Your task to perform on an android device: Open Amazon Image 0: 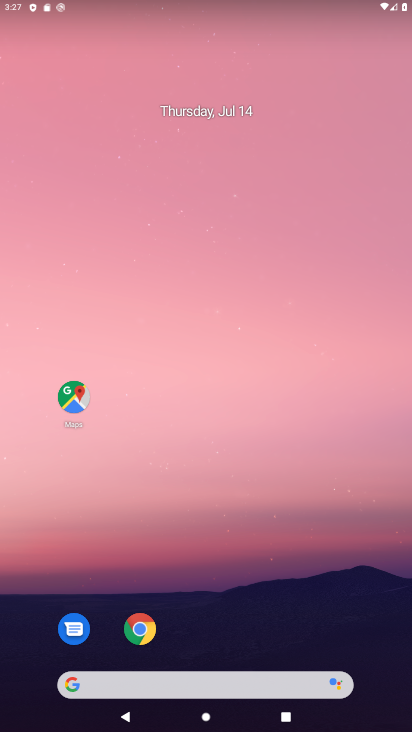
Step 0: drag from (259, 643) to (310, 65)
Your task to perform on an android device: Open Amazon Image 1: 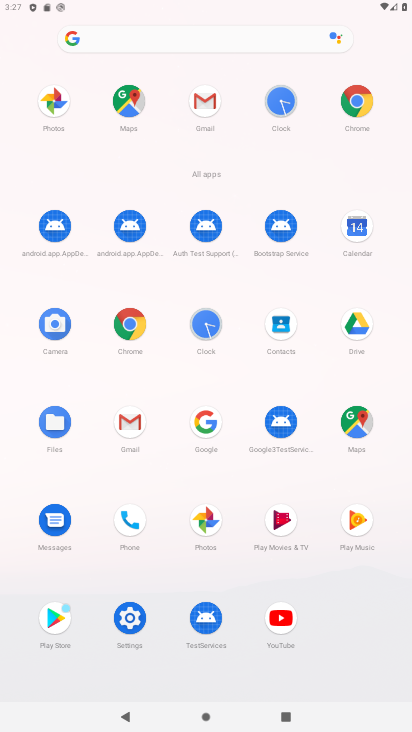
Step 1: click (357, 115)
Your task to perform on an android device: Open Amazon Image 2: 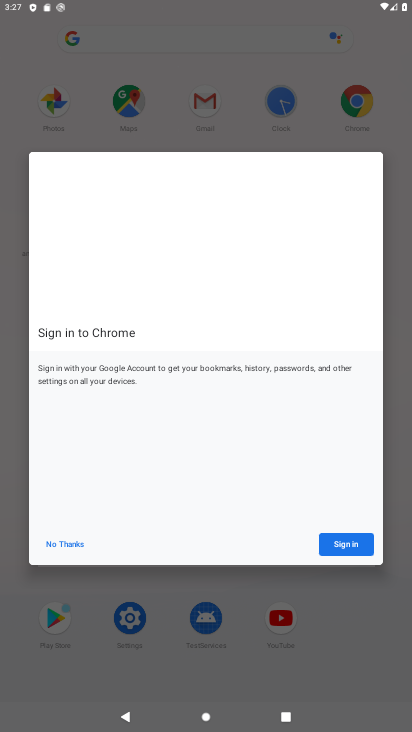
Step 2: click (356, 548)
Your task to perform on an android device: Open Amazon Image 3: 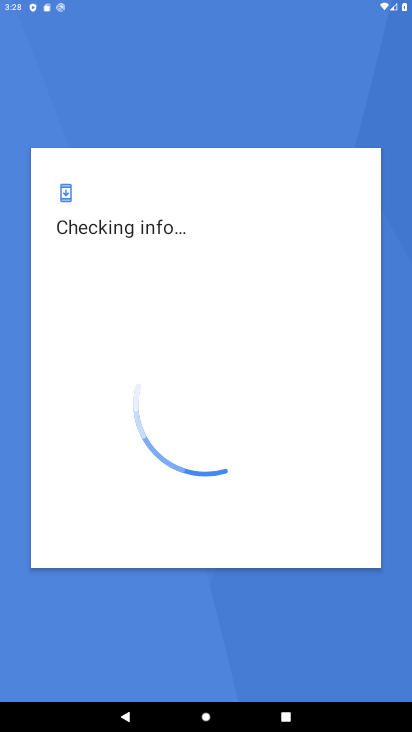
Step 3: press back button
Your task to perform on an android device: Open Amazon Image 4: 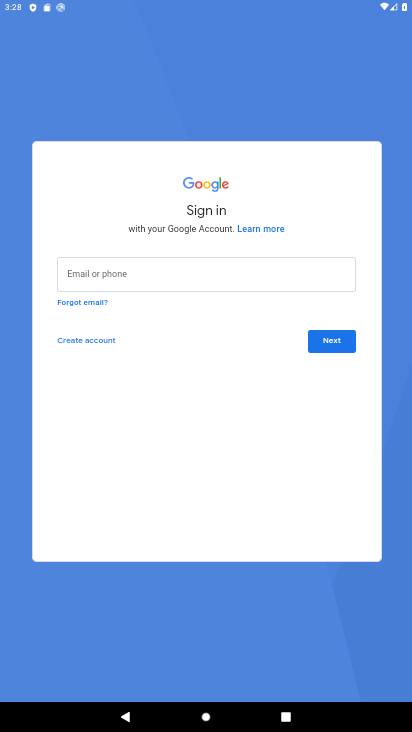
Step 4: press back button
Your task to perform on an android device: Open Amazon Image 5: 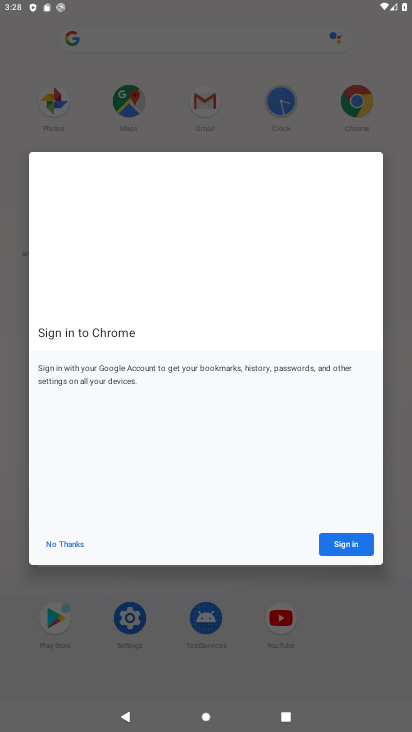
Step 5: click (64, 544)
Your task to perform on an android device: Open Amazon Image 6: 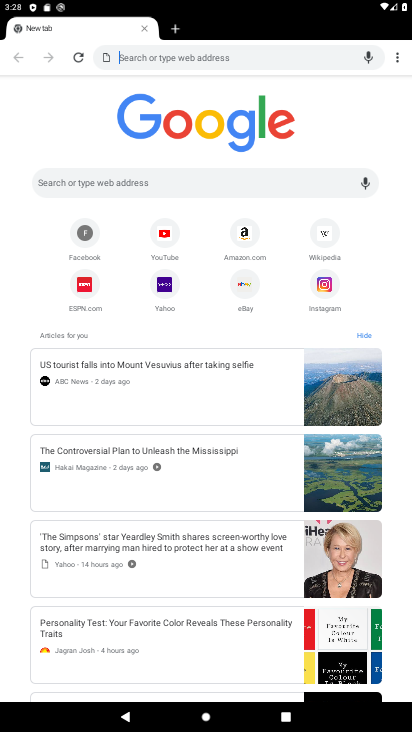
Step 6: click (238, 254)
Your task to perform on an android device: Open Amazon Image 7: 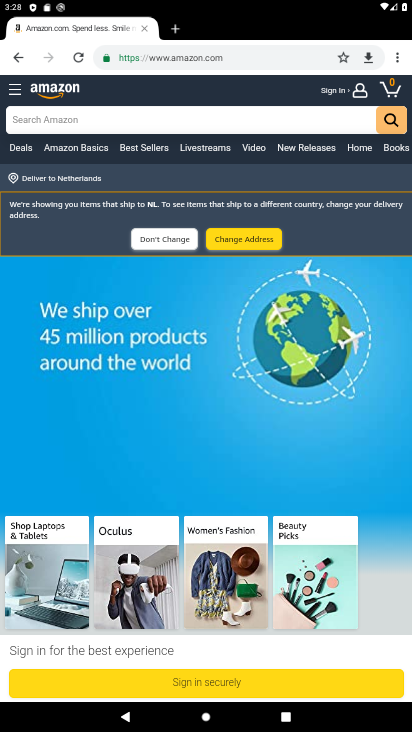
Step 7: task complete